Your task to perform on an android device: turn on improve location accuracy Image 0: 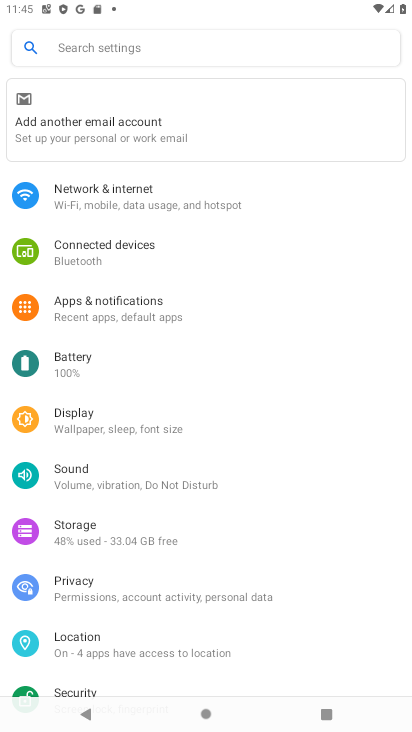
Step 0: press home button
Your task to perform on an android device: turn on improve location accuracy Image 1: 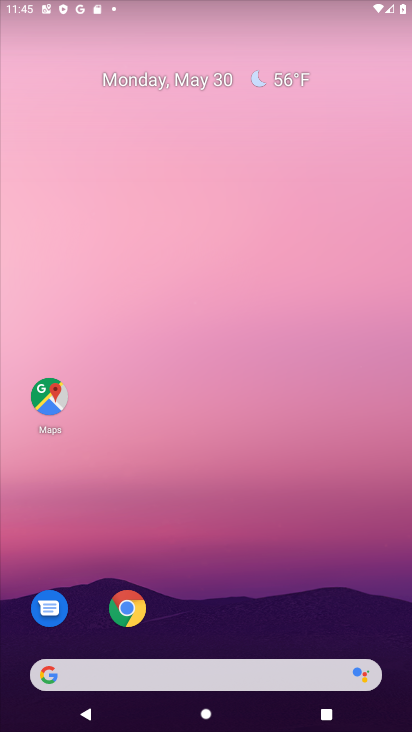
Step 1: drag from (247, 585) to (299, 24)
Your task to perform on an android device: turn on improve location accuracy Image 2: 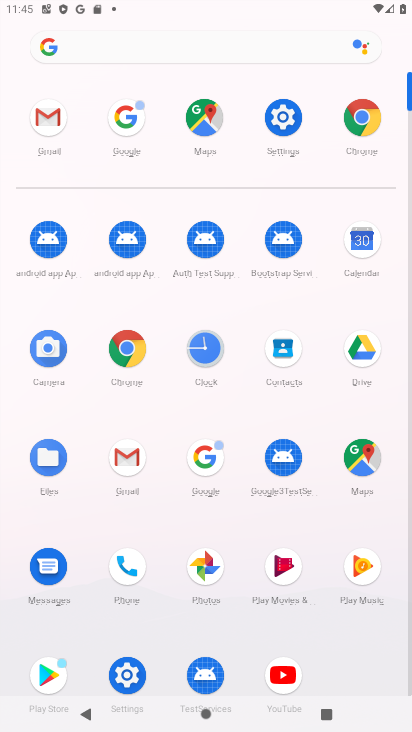
Step 2: click (275, 110)
Your task to perform on an android device: turn on improve location accuracy Image 3: 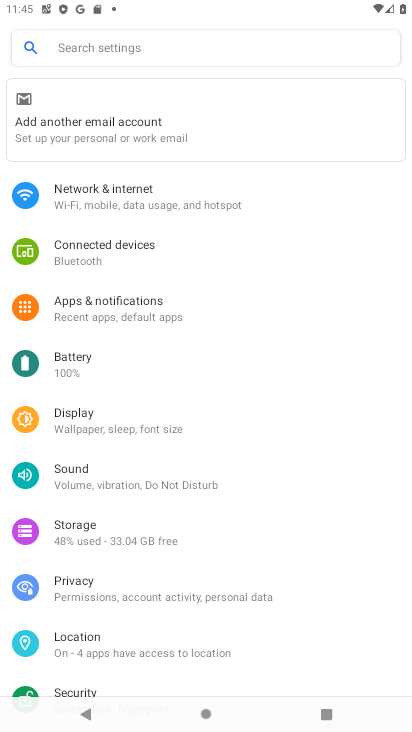
Step 3: click (92, 642)
Your task to perform on an android device: turn on improve location accuracy Image 4: 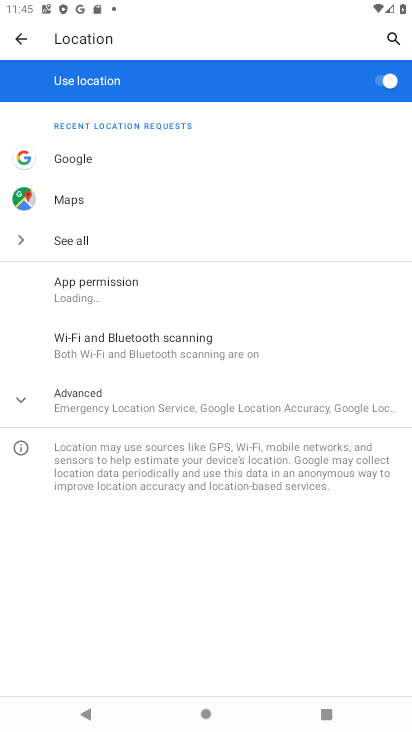
Step 4: click (136, 388)
Your task to perform on an android device: turn on improve location accuracy Image 5: 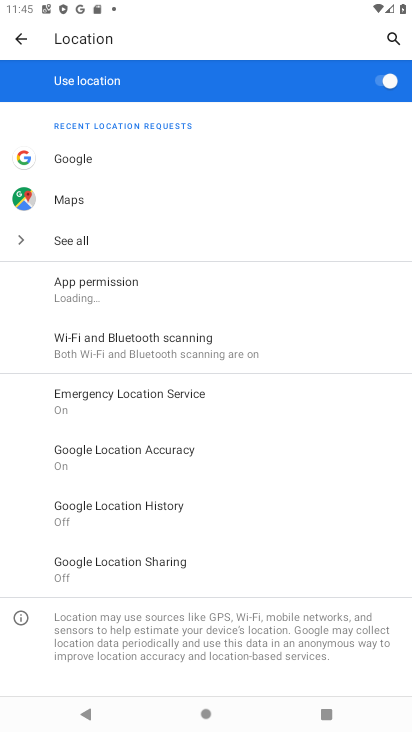
Step 5: click (137, 459)
Your task to perform on an android device: turn on improve location accuracy Image 6: 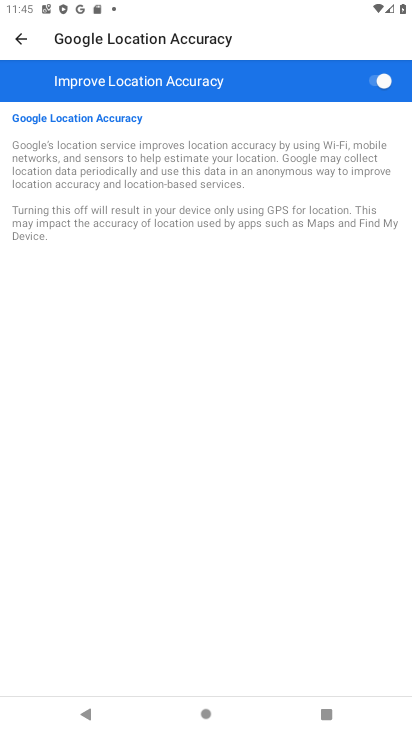
Step 6: task complete